Your task to perform on an android device: Search for seafood restaurants on Google Maps Image 0: 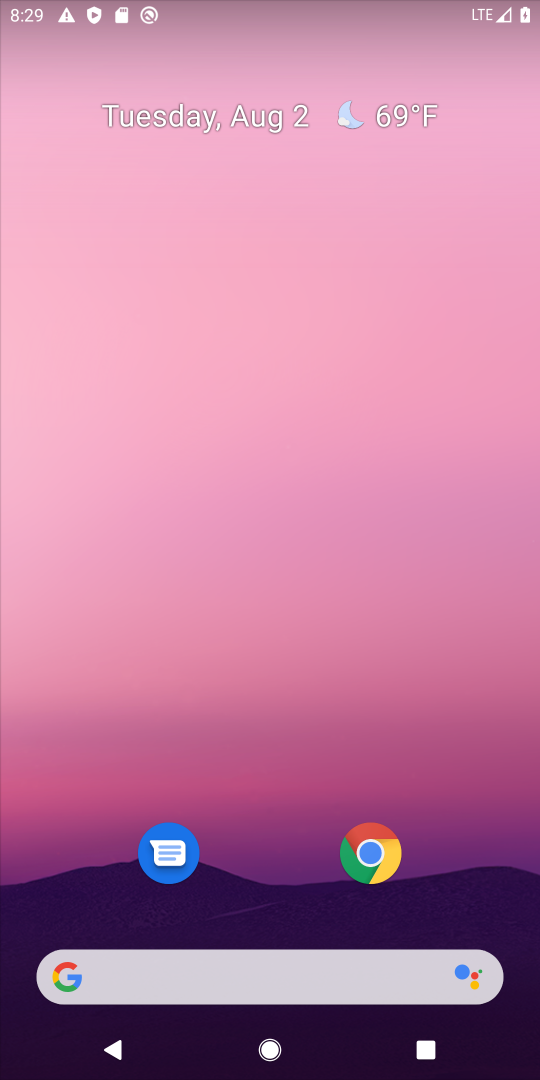
Step 0: drag from (283, 901) to (144, 266)
Your task to perform on an android device: Search for seafood restaurants on Google Maps Image 1: 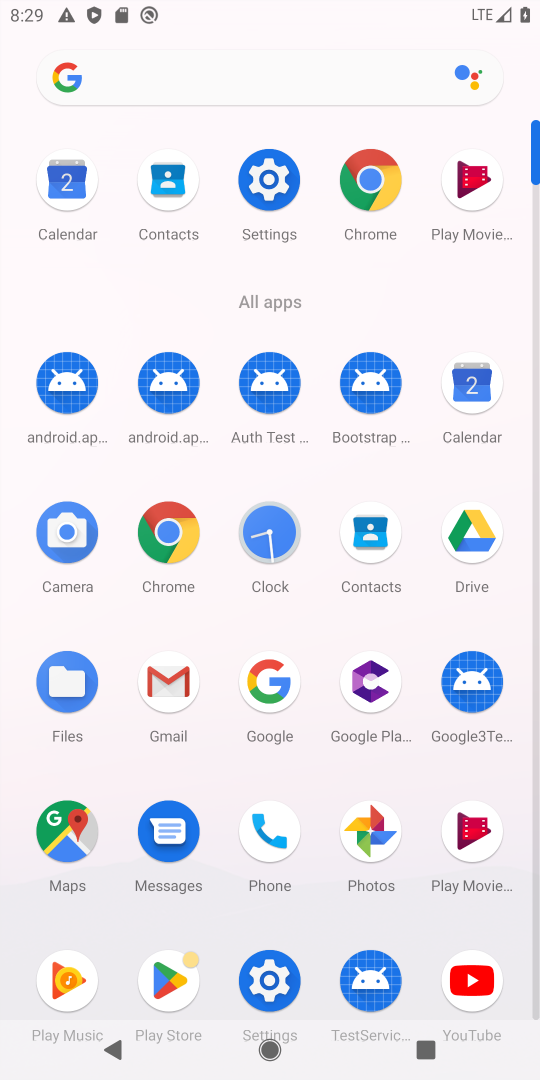
Step 1: click (76, 818)
Your task to perform on an android device: Search for seafood restaurants on Google Maps Image 2: 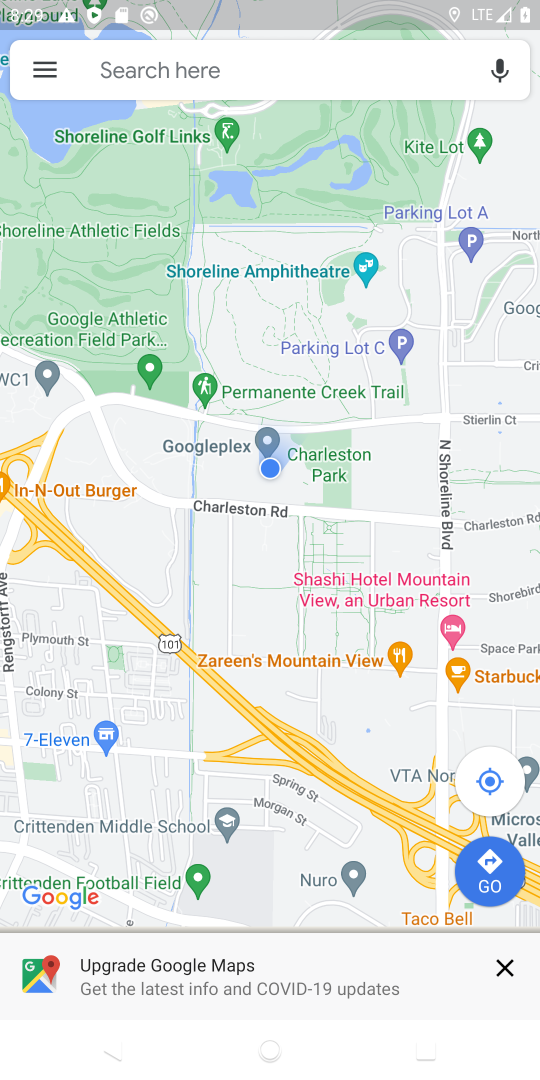
Step 2: click (325, 55)
Your task to perform on an android device: Search for seafood restaurants on Google Maps Image 3: 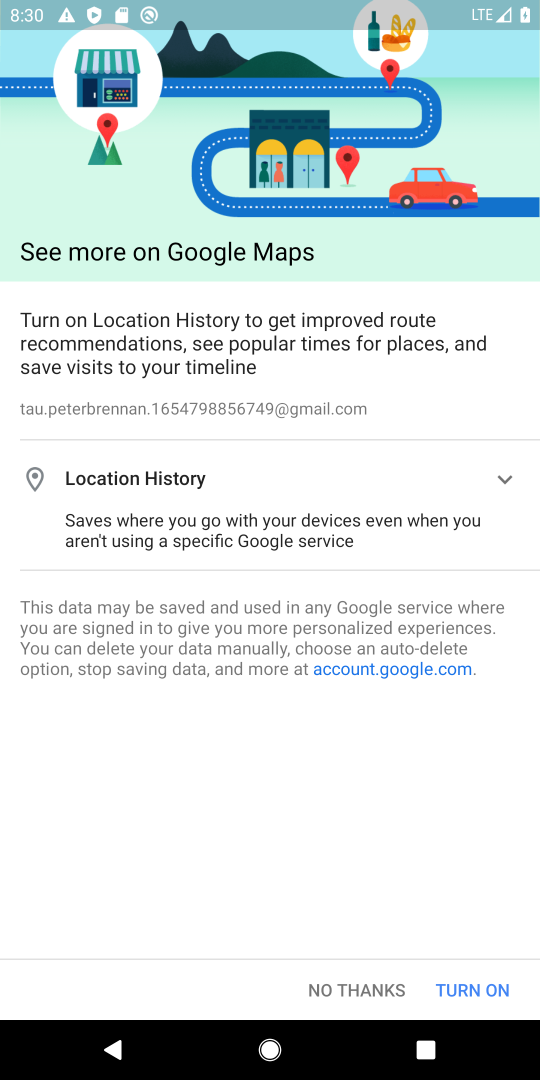
Step 3: press back button
Your task to perform on an android device: Search for seafood restaurants on Google Maps Image 4: 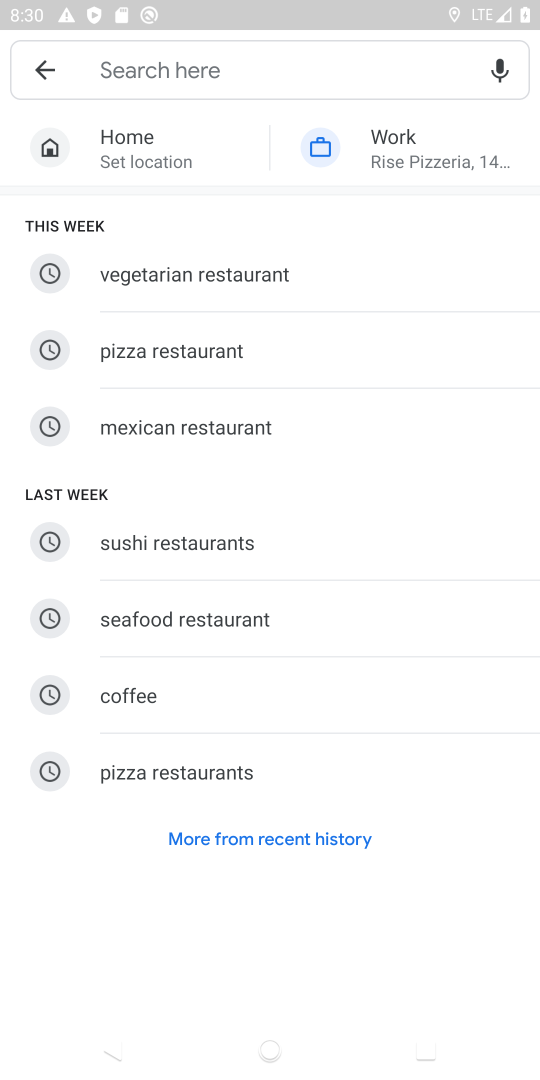
Step 4: click (157, 62)
Your task to perform on an android device: Search for seafood restaurants on Google Maps Image 5: 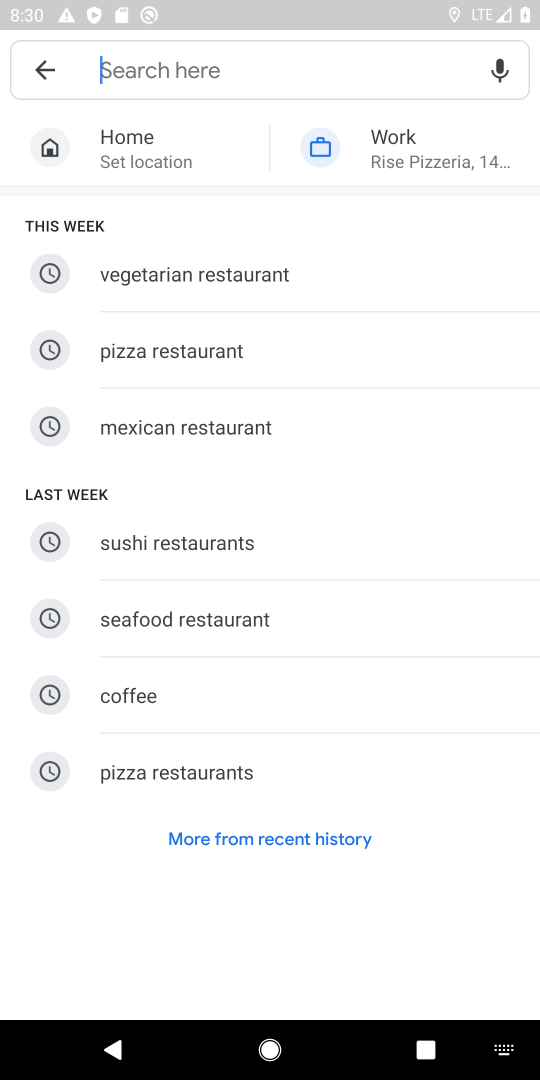
Step 5: click (124, 622)
Your task to perform on an android device: Search for seafood restaurants on Google Maps Image 6: 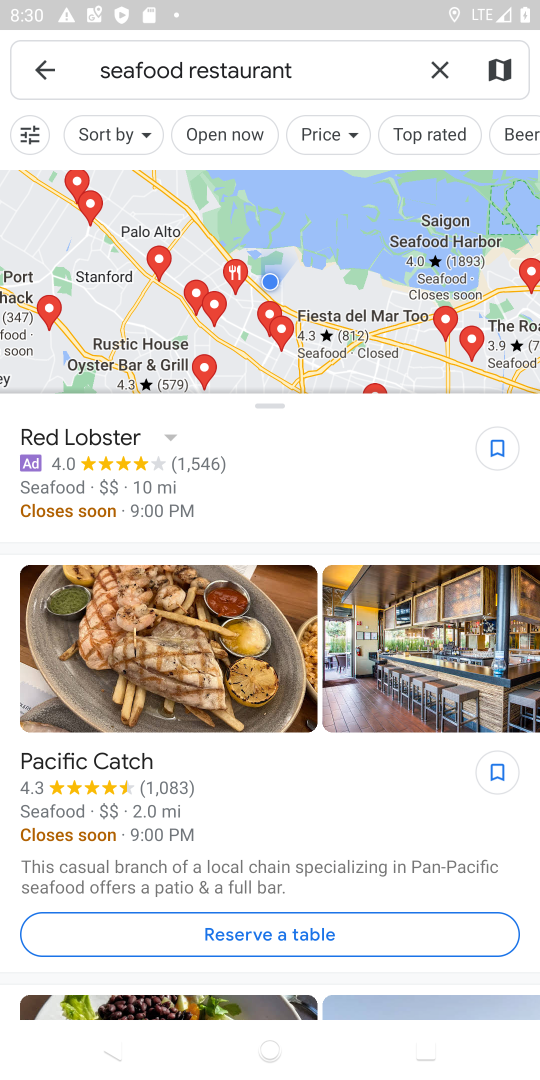
Step 6: task complete